Your task to perform on an android device: Go to Maps Image 0: 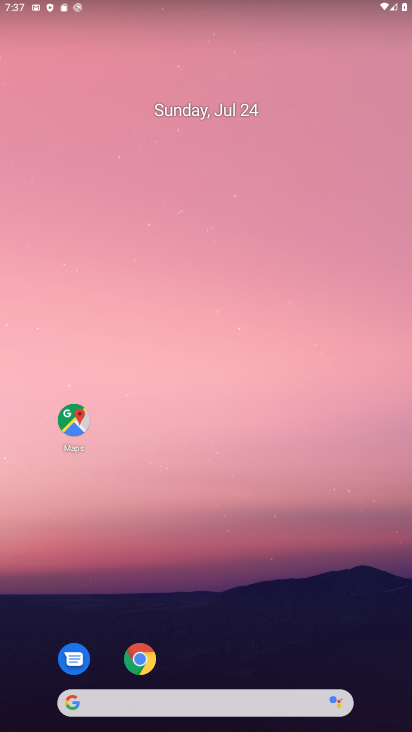
Step 0: click (70, 423)
Your task to perform on an android device: Go to Maps Image 1: 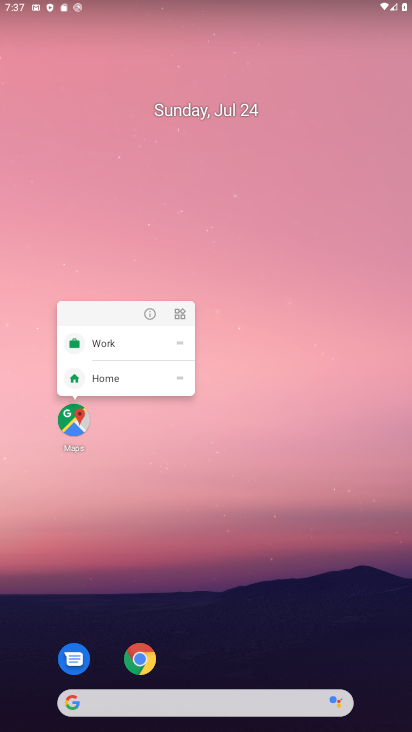
Step 1: click (70, 423)
Your task to perform on an android device: Go to Maps Image 2: 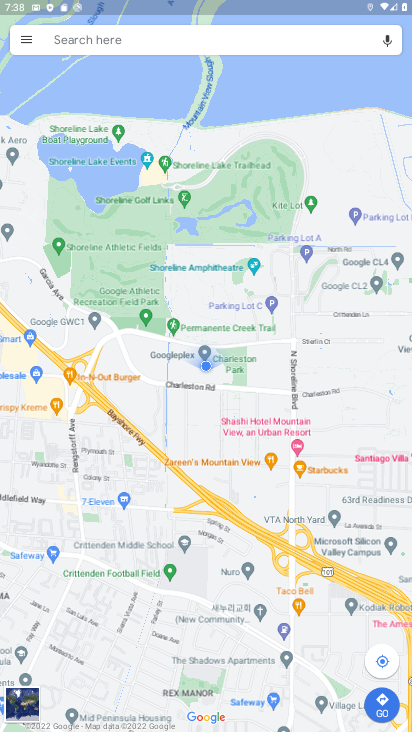
Step 2: task complete